Your task to perform on an android device: Open settings on Google Maps Image 0: 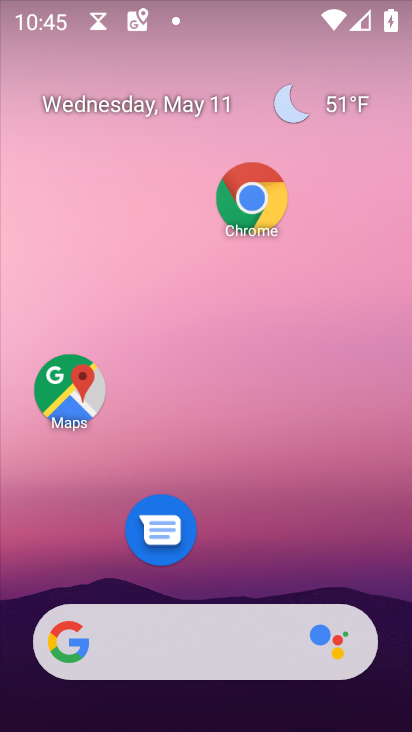
Step 0: click (69, 407)
Your task to perform on an android device: Open settings on Google Maps Image 1: 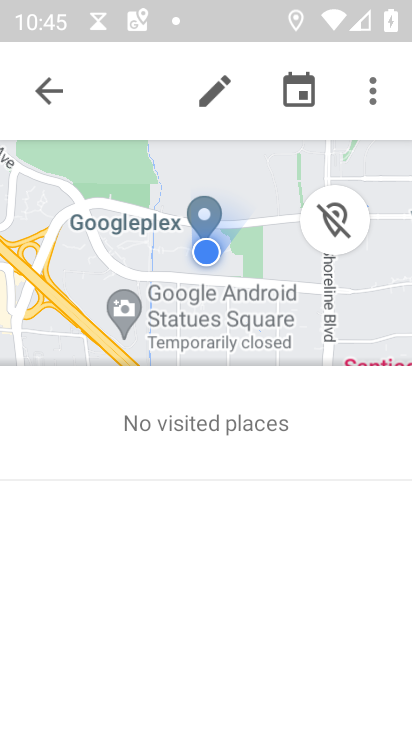
Step 1: click (45, 82)
Your task to perform on an android device: Open settings on Google Maps Image 2: 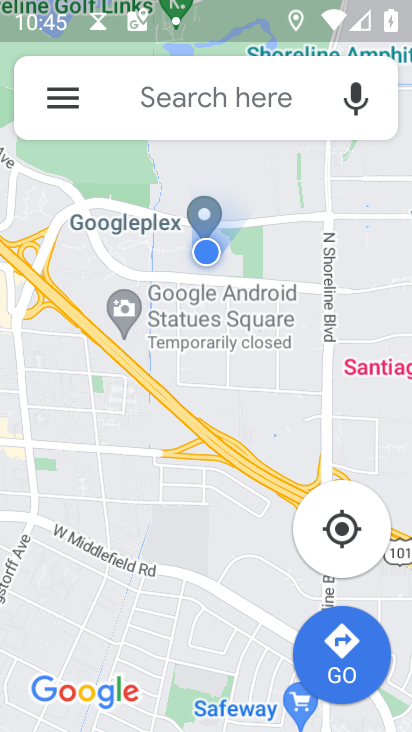
Step 2: click (77, 99)
Your task to perform on an android device: Open settings on Google Maps Image 3: 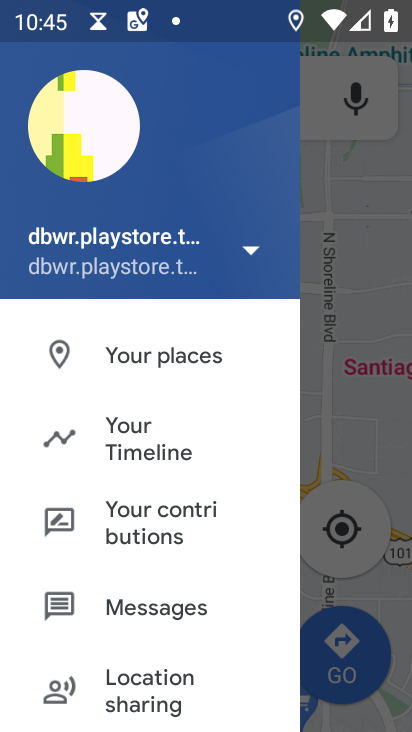
Step 3: drag from (152, 670) to (150, 287)
Your task to perform on an android device: Open settings on Google Maps Image 4: 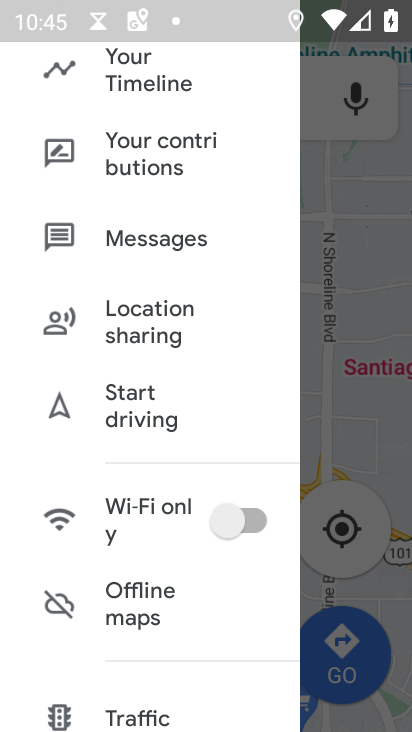
Step 4: drag from (151, 664) to (187, 236)
Your task to perform on an android device: Open settings on Google Maps Image 5: 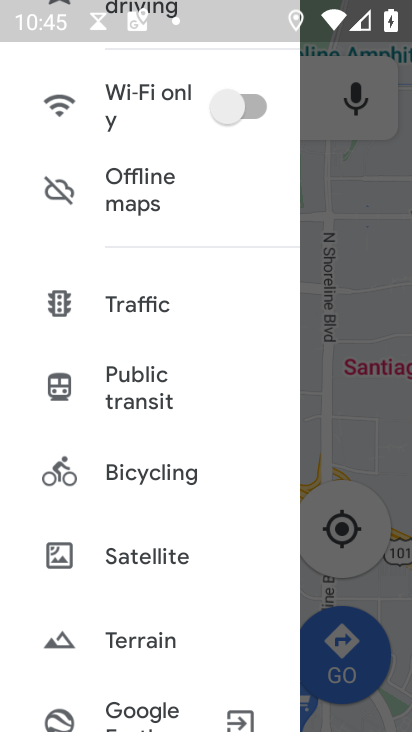
Step 5: click (193, 324)
Your task to perform on an android device: Open settings on Google Maps Image 6: 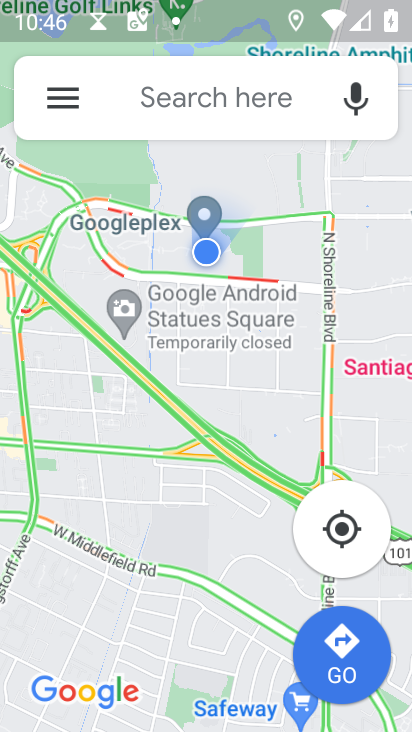
Step 6: click (58, 102)
Your task to perform on an android device: Open settings on Google Maps Image 7: 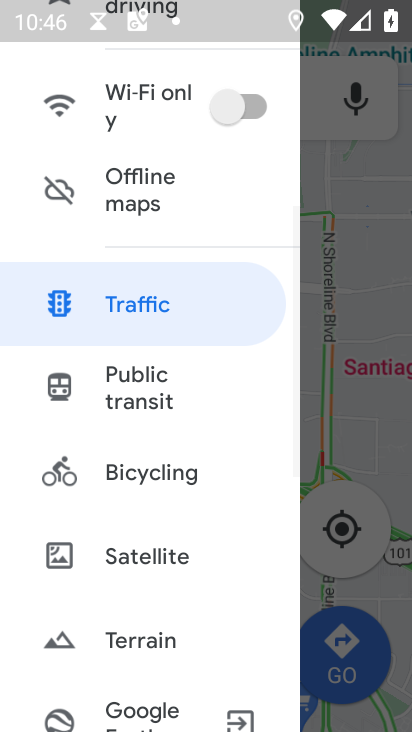
Step 7: drag from (154, 619) to (170, 281)
Your task to perform on an android device: Open settings on Google Maps Image 8: 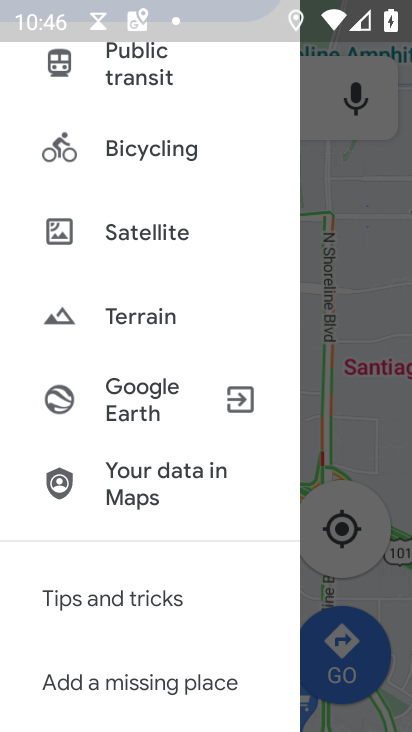
Step 8: drag from (146, 576) to (169, 264)
Your task to perform on an android device: Open settings on Google Maps Image 9: 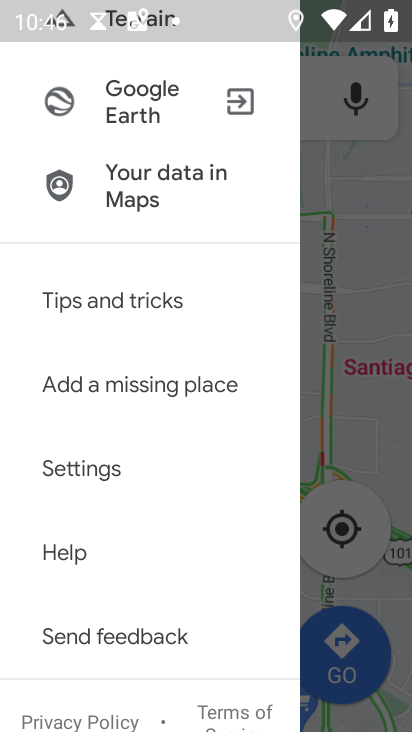
Step 9: click (62, 473)
Your task to perform on an android device: Open settings on Google Maps Image 10: 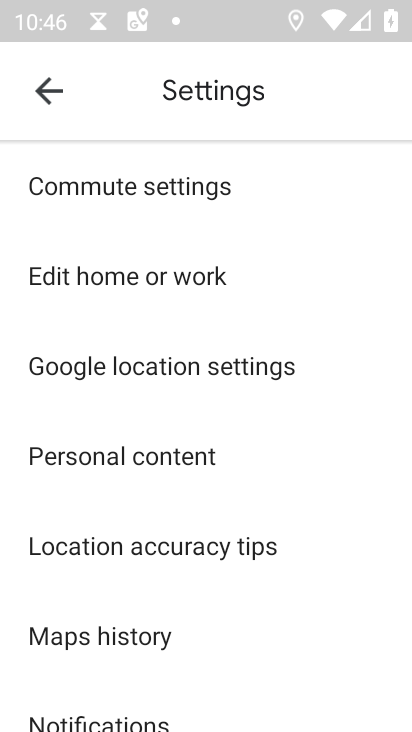
Step 10: task complete